Your task to perform on an android device: Show me popular games on the Play Store Image 0: 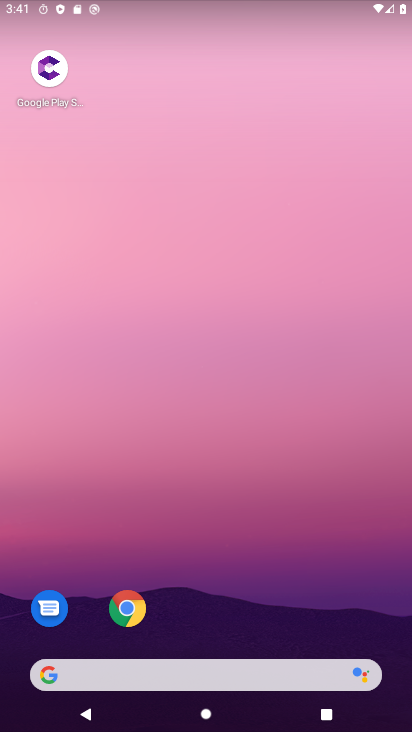
Step 0: press home button
Your task to perform on an android device: Show me popular games on the Play Store Image 1: 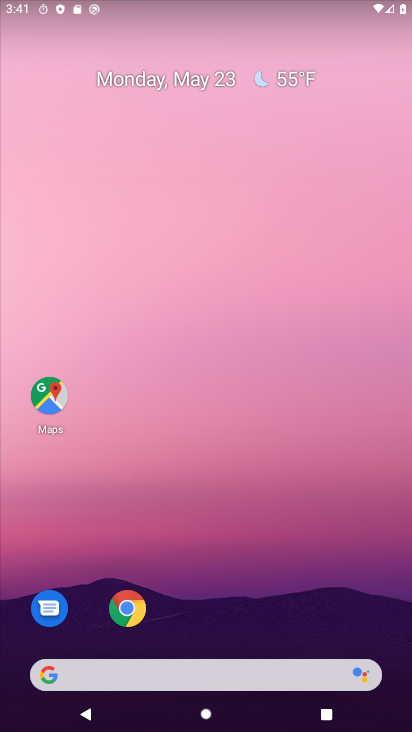
Step 1: drag from (28, 560) to (279, 116)
Your task to perform on an android device: Show me popular games on the Play Store Image 2: 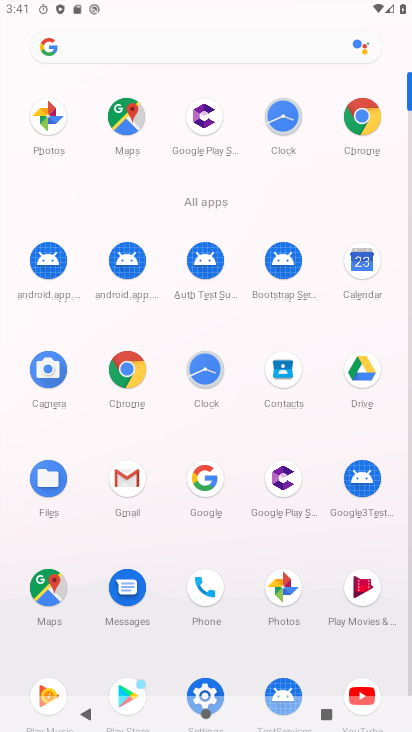
Step 2: click (118, 685)
Your task to perform on an android device: Show me popular games on the Play Store Image 3: 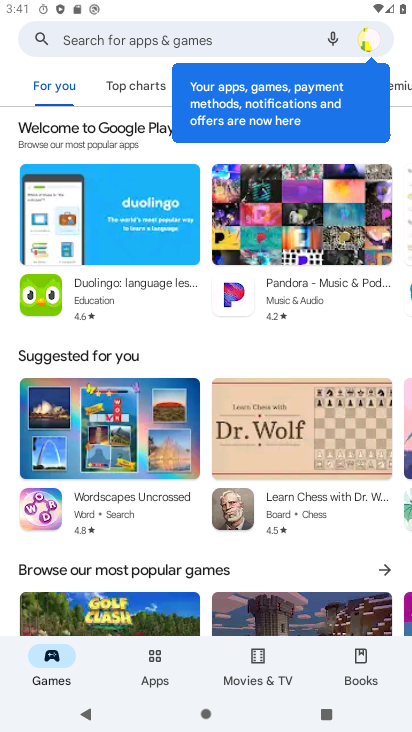
Step 3: click (61, 670)
Your task to perform on an android device: Show me popular games on the Play Store Image 4: 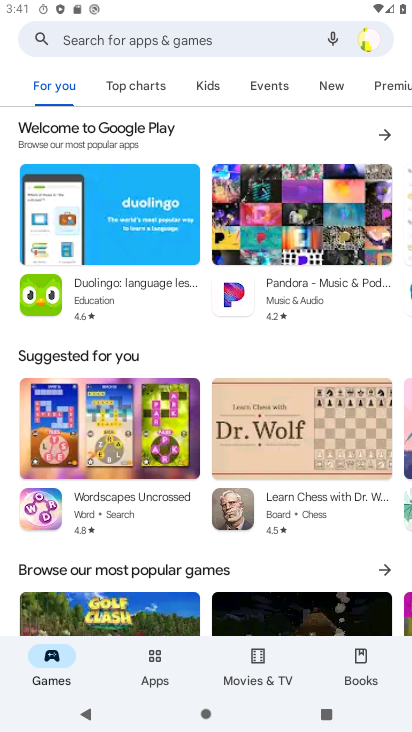
Step 4: task complete